Your task to perform on an android device: Do I have any events tomorrow? Image 0: 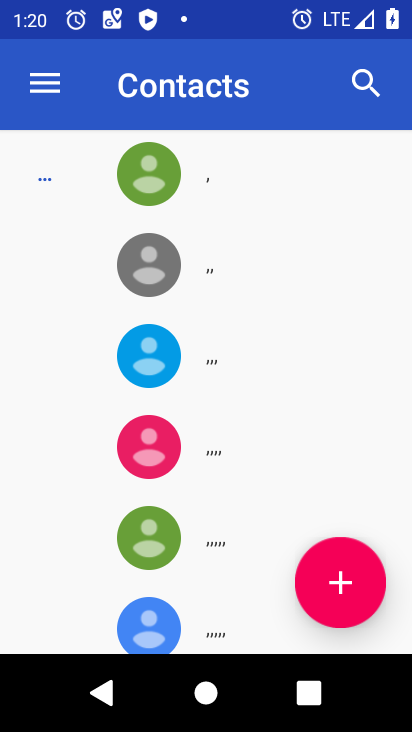
Step 0: press home button
Your task to perform on an android device: Do I have any events tomorrow? Image 1: 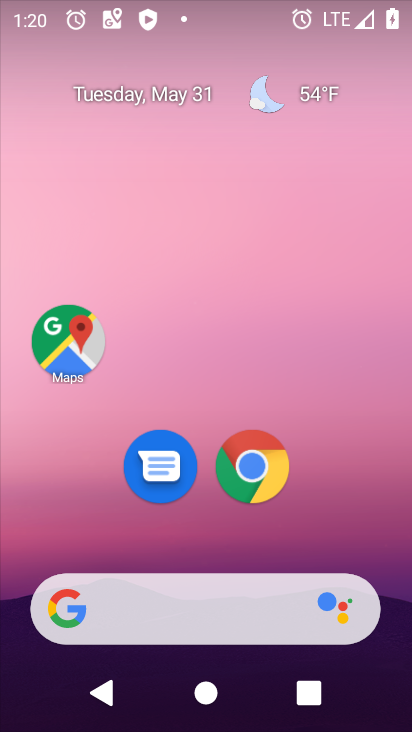
Step 1: drag from (170, 625) to (117, 16)
Your task to perform on an android device: Do I have any events tomorrow? Image 2: 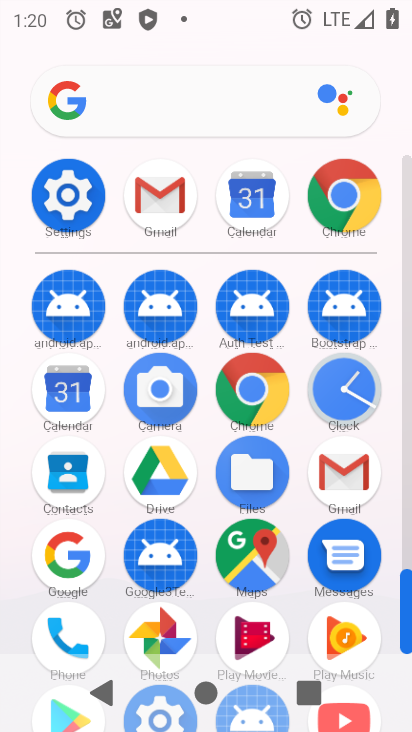
Step 2: click (69, 390)
Your task to perform on an android device: Do I have any events tomorrow? Image 3: 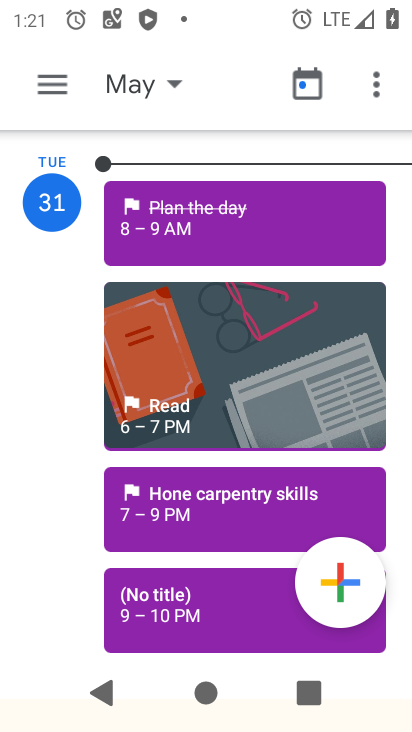
Step 3: click (63, 96)
Your task to perform on an android device: Do I have any events tomorrow? Image 4: 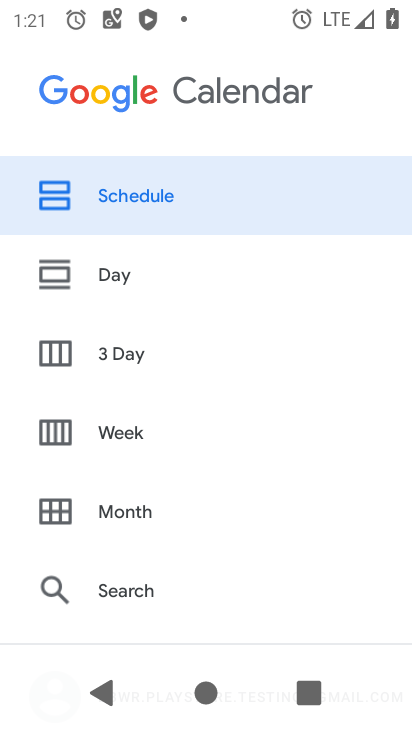
Step 4: click (113, 206)
Your task to perform on an android device: Do I have any events tomorrow? Image 5: 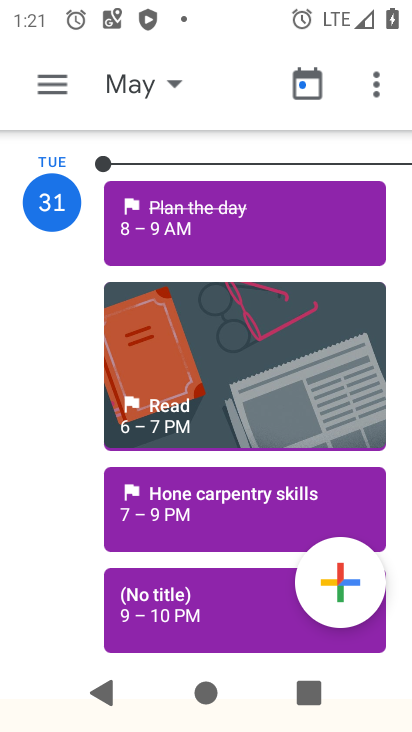
Step 5: task complete